Your task to perform on an android device: turn off translation in the chrome app Image 0: 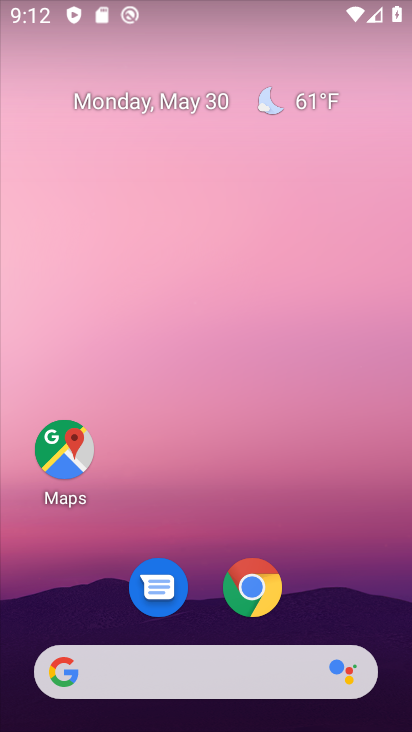
Step 0: click (269, 587)
Your task to perform on an android device: turn off translation in the chrome app Image 1: 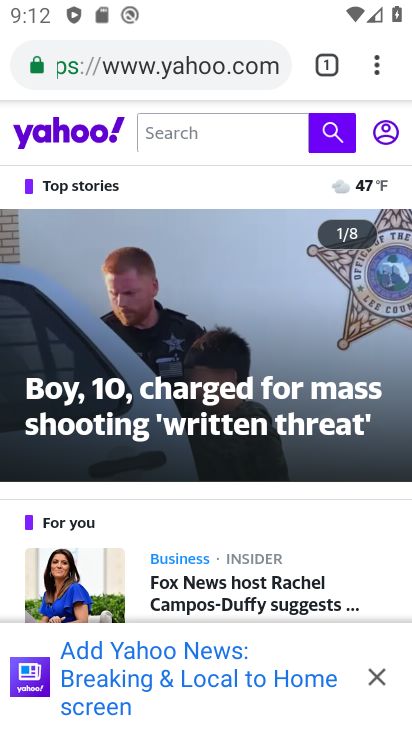
Step 1: click (364, 67)
Your task to perform on an android device: turn off translation in the chrome app Image 2: 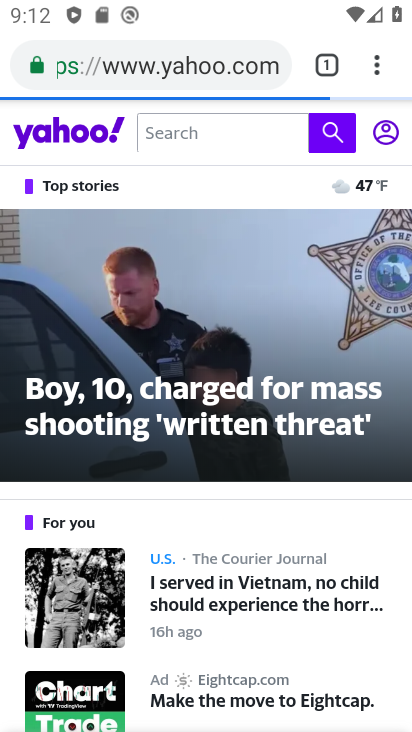
Step 2: click (373, 56)
Your task to perform on an android device: turn off translation in the chrome app Image 3: 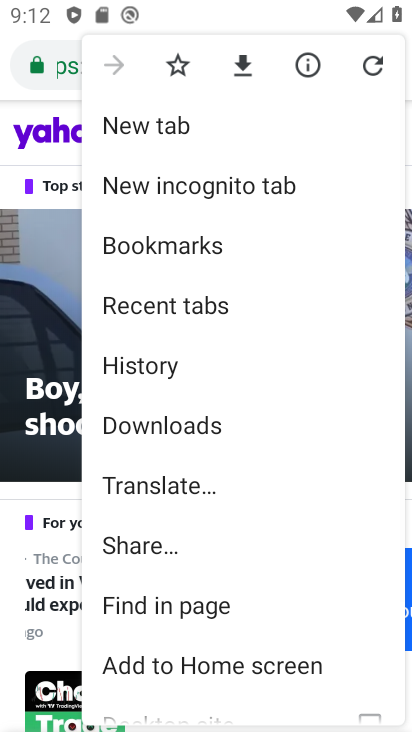
Step 3: drag from (194, 592) to (232, 72)
Your task to perform on an android device: turn off translation in the chrome app Image 4: 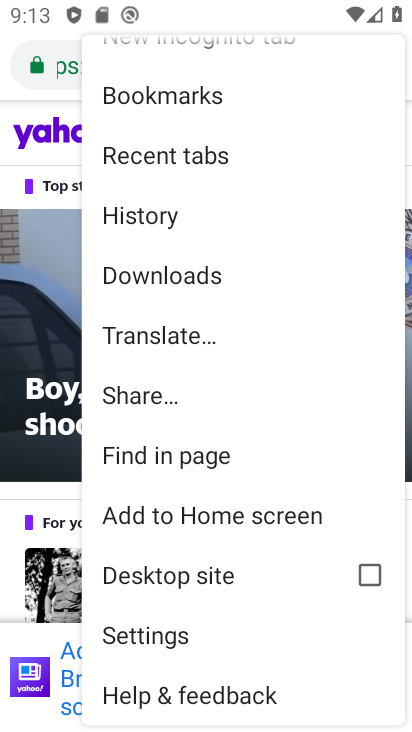
Step 4: drag from (181, 222) to (153, 618)
Your task to perform on an android device: turn off translation in the chrome app Image 5: 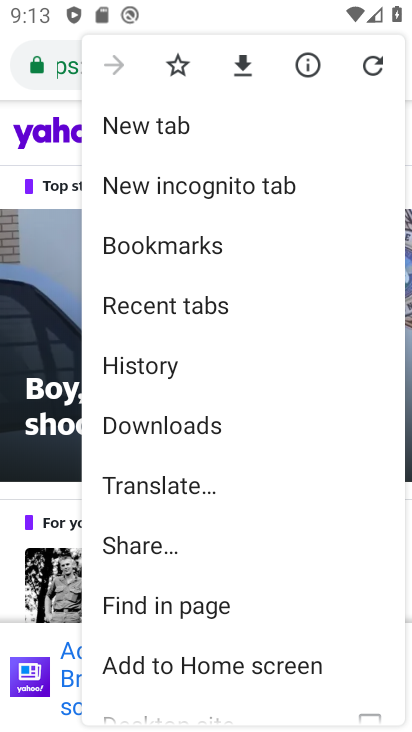
Step 5: drag from (170, 554) to (134, 9)
Your task to perform on an android device: turn off translation in the chrome app Image 6: 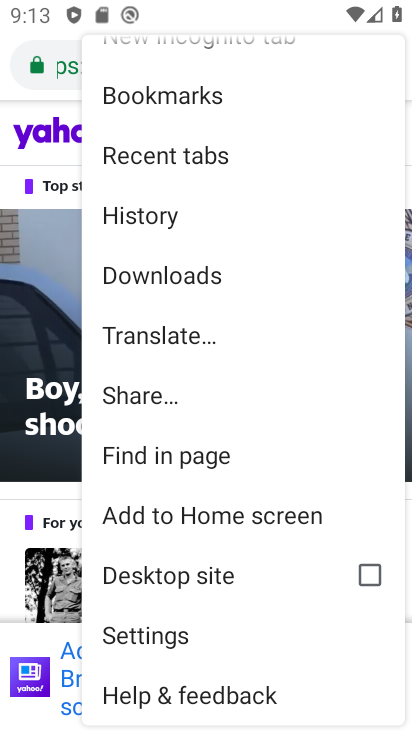
Step 6: click (169, 624)
Your task to perform on an android device: turn off translation in the chrome app Image 7: 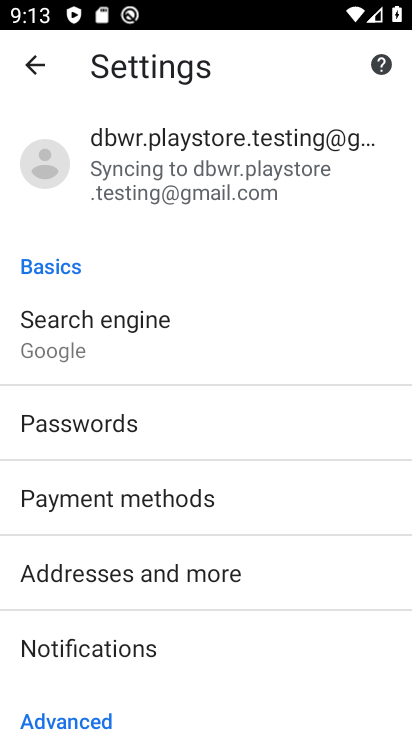
Step 7: drag from (245, 619) to (224, 106)
Your task to perform on an android device: turn off translation in the chrome app Image 8: 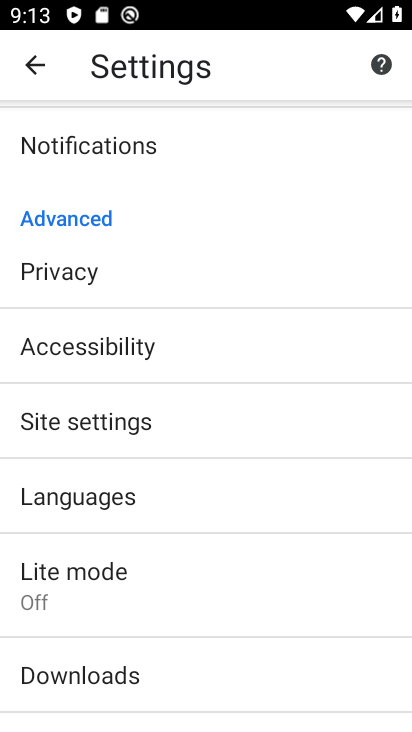
Step 8: click (89, 471)
Your task to perform on an android device: turn off translation in the chrome app Image 9: 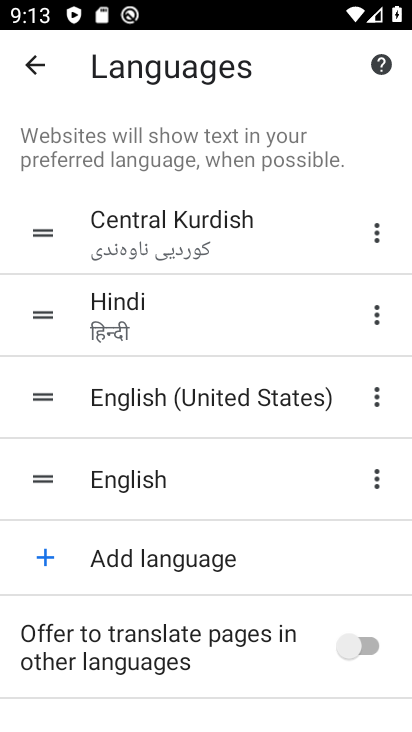
Step 9: task complete